Your task to perform on an android device: add a contact Image 0: 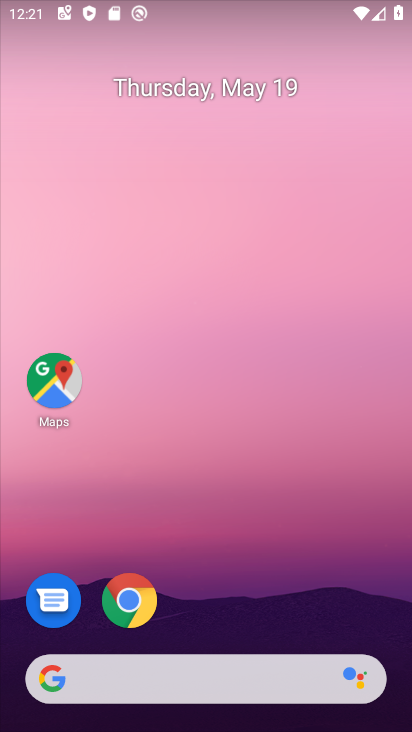
Step 0: drag from (271, 407) to (210, 59)
Your task to perform on an android device: add a contact Image 1: 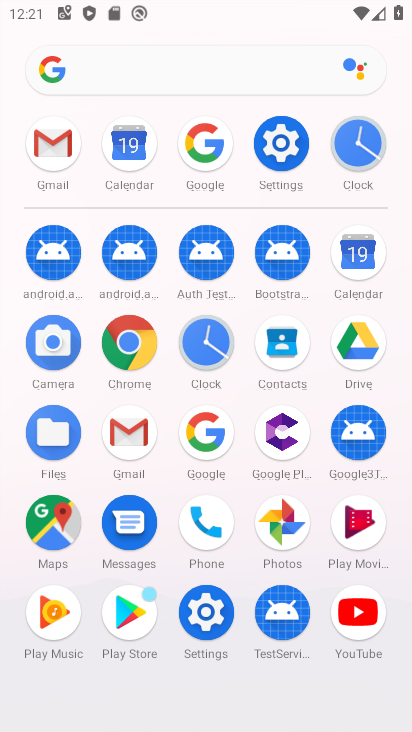
Step 1: click (285, 348)
Your task to perform on an android device: add a contact Image 2: 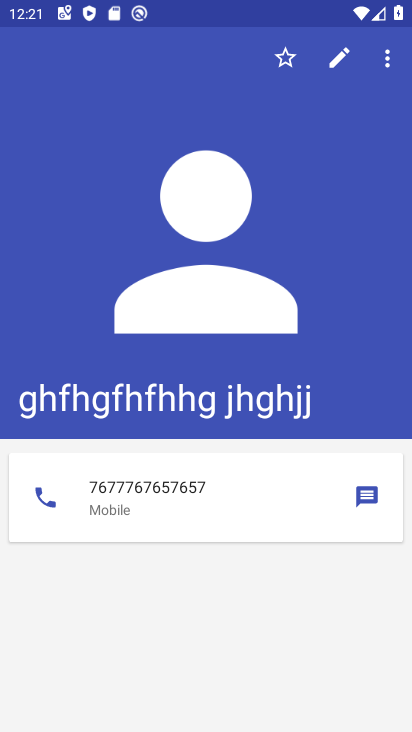
Step 2: press back button
Your task to perform on an android device: add a contact Image 3: 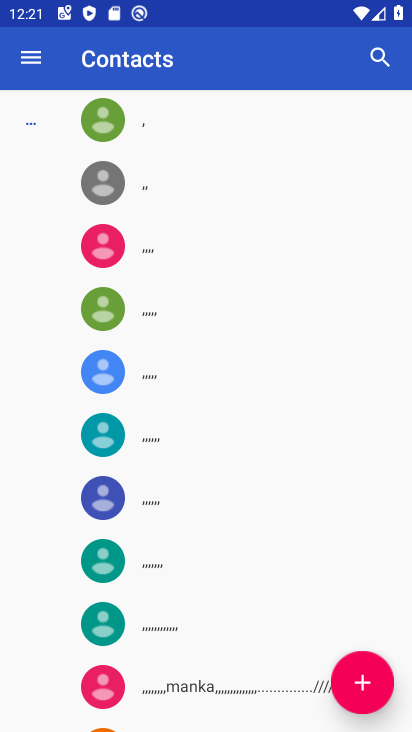
Step 3: click (366, 688)
Your task to perform on an android device: add a contact Image 4: 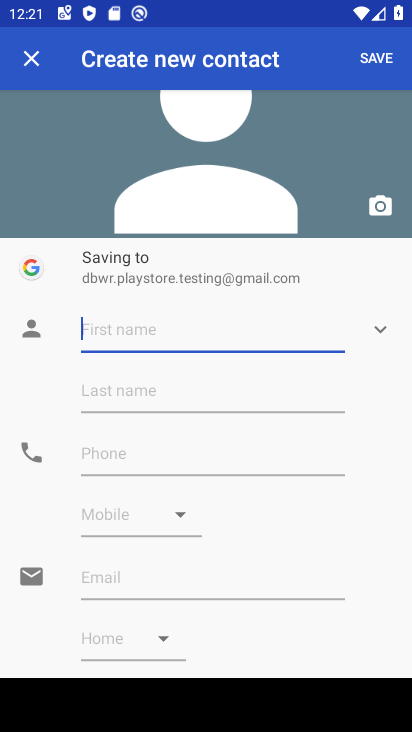
Step 4: type "fgsdf"
Your task to perform on an android device: add a contact Image 5: 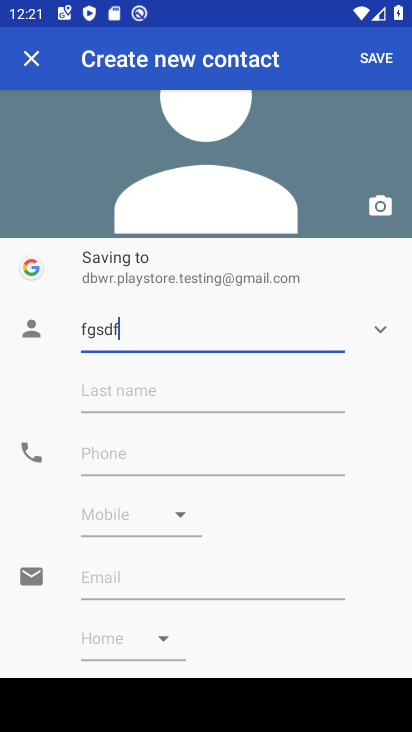
Step 5: click (240, 380)
Your task to perform on an android device: add a contact Image 6: 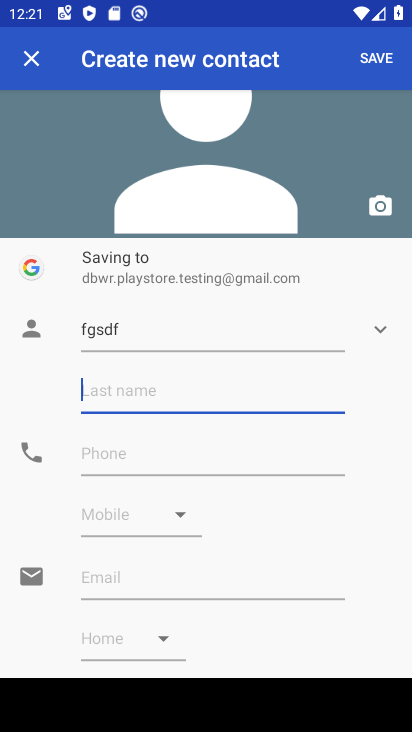
Step 6: type "fgsdfg"
Your task to perform on an android device: add a contact Image 7: 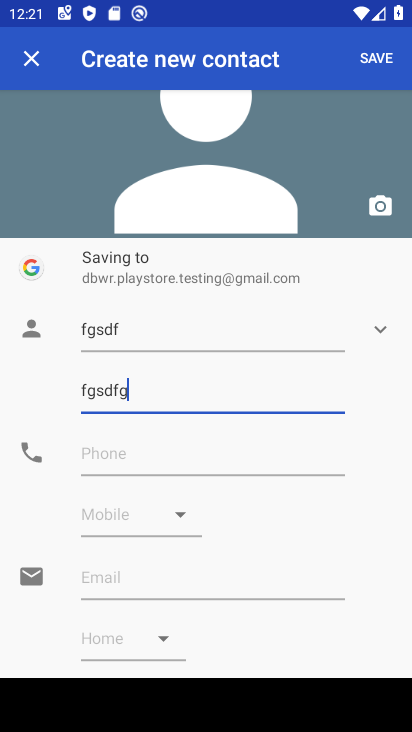
Step 7: type ""
Your task to perform on an android device: add a contact Image 8: 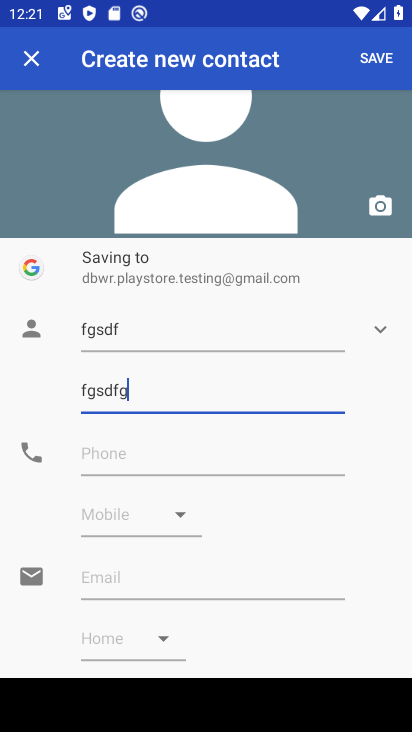
Step 8: click (206, 396)
Your task to perform on an android device: add a contact Image 9: 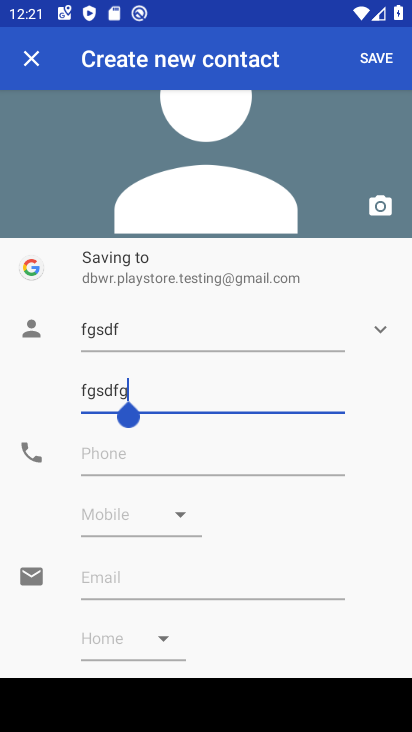
Step 9: type "53546235"
Your task to perform on an android device: add a contact Image 10: 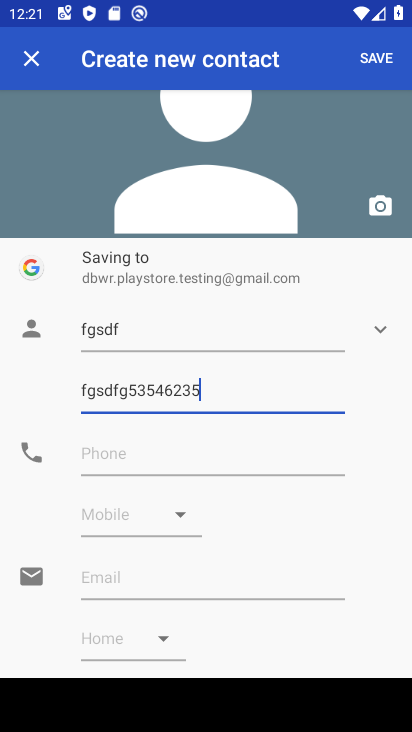
Step 10: type ""
Your task to perform on an android device: add a contact Image 11: 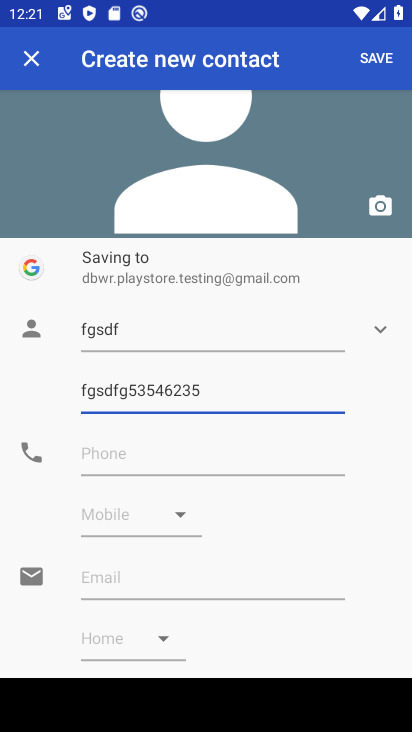
Step 11: click (375, 53)
Your task to perform on an android device: add a contact Image 12: 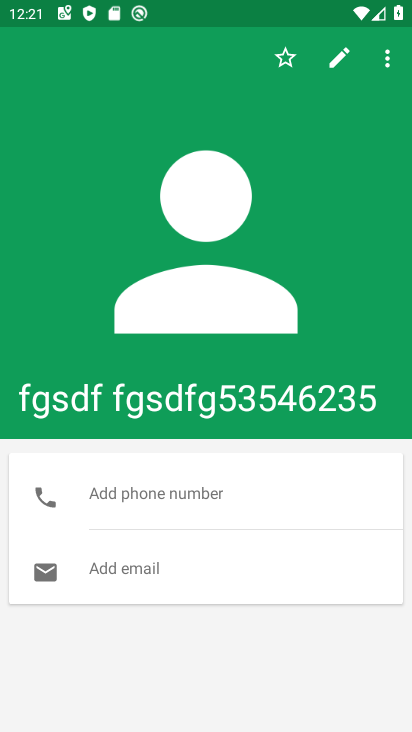
Step 12: task complete